Your task to perform on an android device: What's on my calendar today? Image 0: 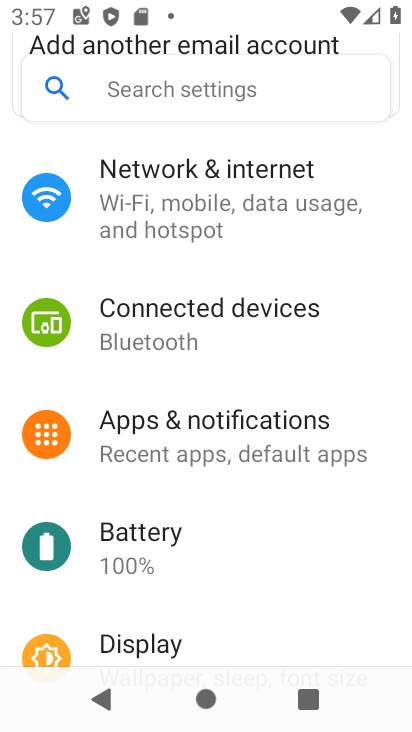
Step 0: press home button
Your task to perform on an android device: What's on my calendar today? Image 1: 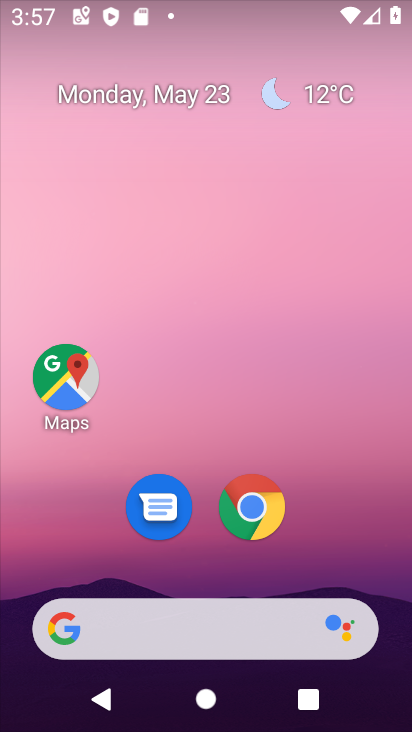
Step 1: click (181, 99)
Your task to perform on an android device: What's on my calendar today? Image 2: 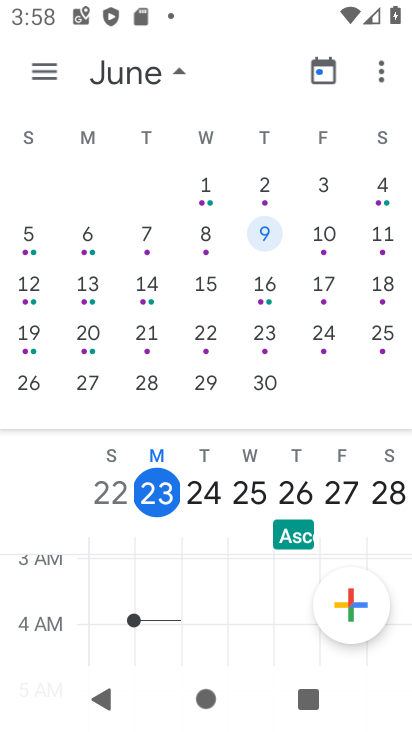
Step 2: task complete